Your task to perform on an android device: Open Chrome and go to settings Image 0: 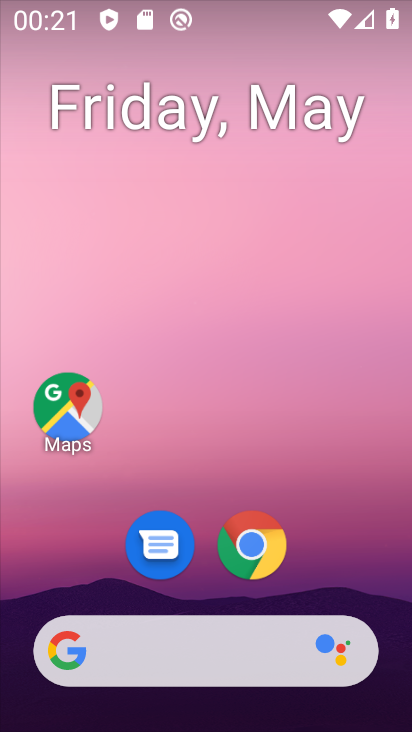
Step 0: drag from (300, 590) to (299, 124)
Your task to perform on an android device: Open Chrome and go to settings Image 1: 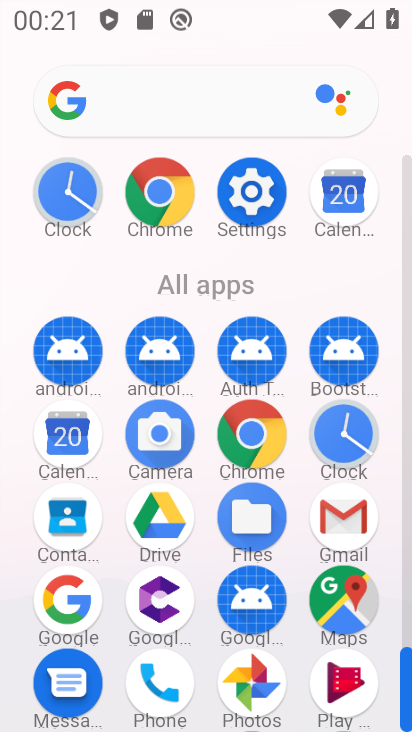
Step 1: click (252, 187)
Your task to perform on an android device: Open Chrome and go to settings Image 2: 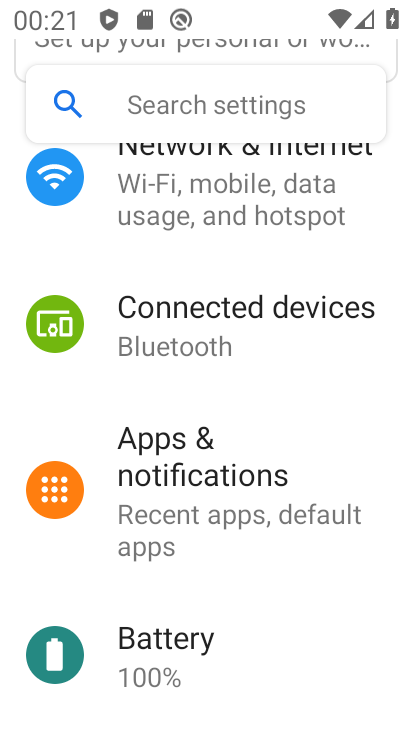
Step 2: press back button
Your task to perform on an android device: Open Chrome and go to settings Image 3: 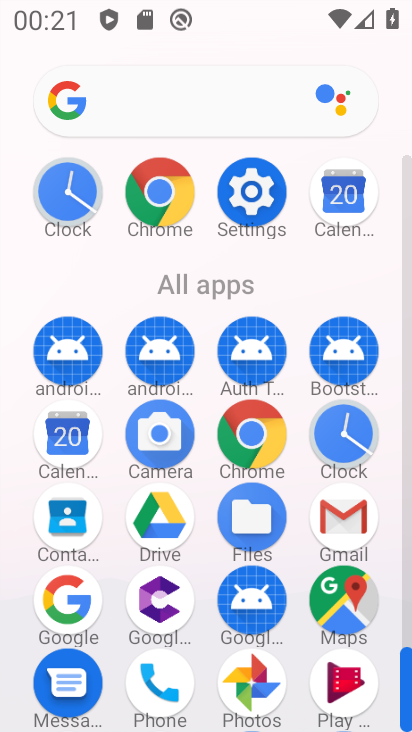
Step 3: click (256, 441)
Your task to perform on an android device: Open Chrome and go to settings Image 4: 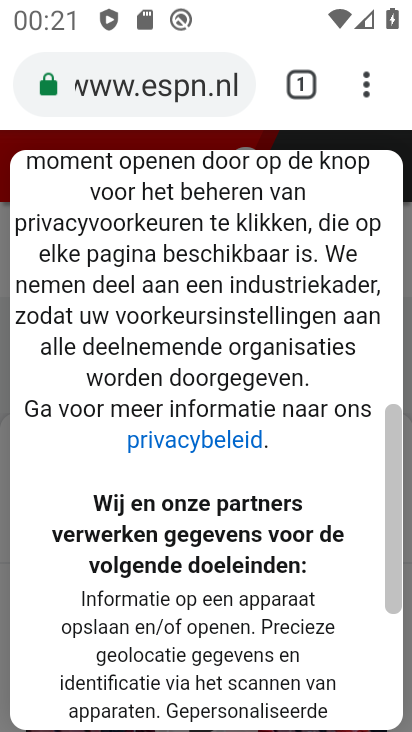
Step 4: click (365, 93)
Your task to perform on an android device: Open Chrome and go to settings Image 5: 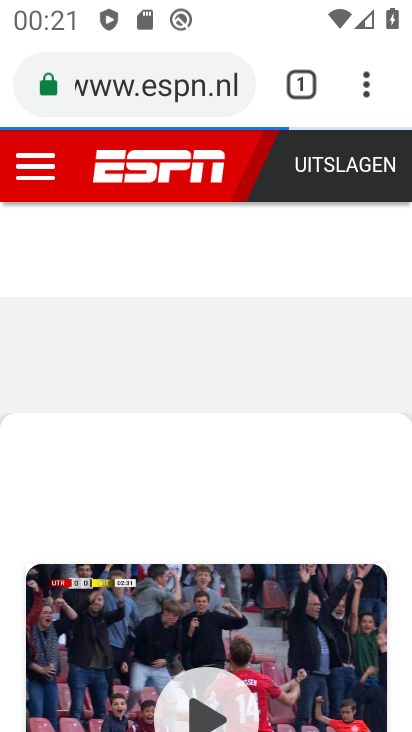
Step 5: click (364, 87)
Your task to perform on an android device: Open Chrome and go to settings Image 6: 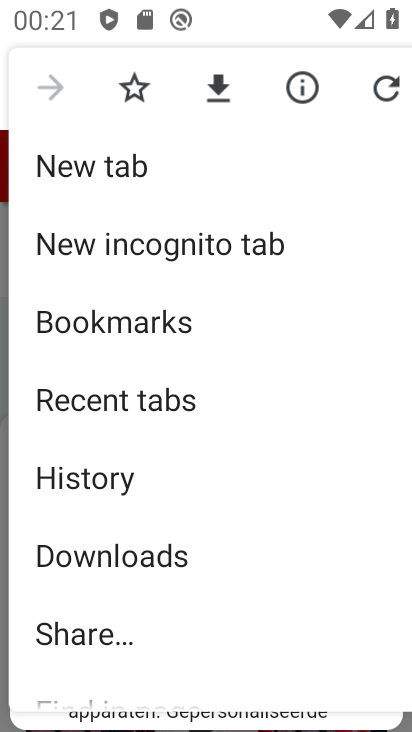
Step 6: drag from (155, 593) to (154, 289)
Your task to perform on an android device: Open Chrome and go to settings Image 7: 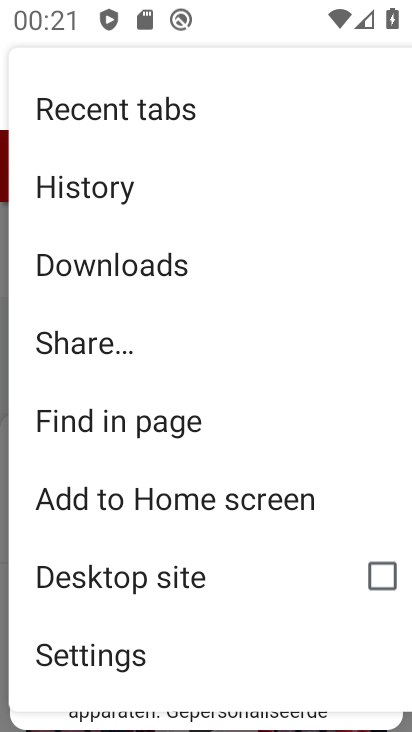
Step 7: click (80, 667)
Your task to perform on an android device: Open Chrome and go to settings Image 8: 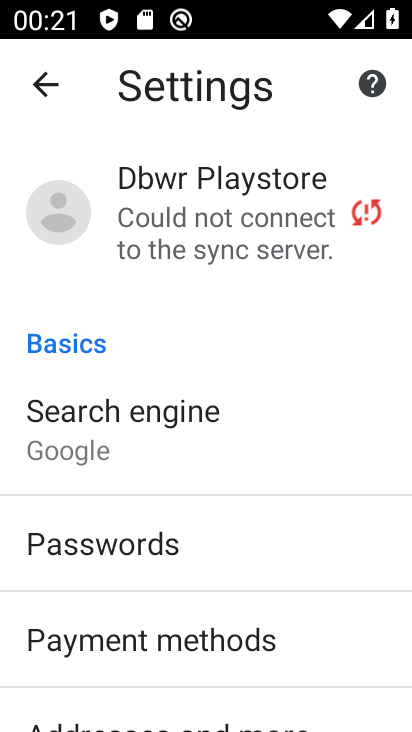
Step 8: task complete